Your task to perform on an android device: Open display settings Image 0: 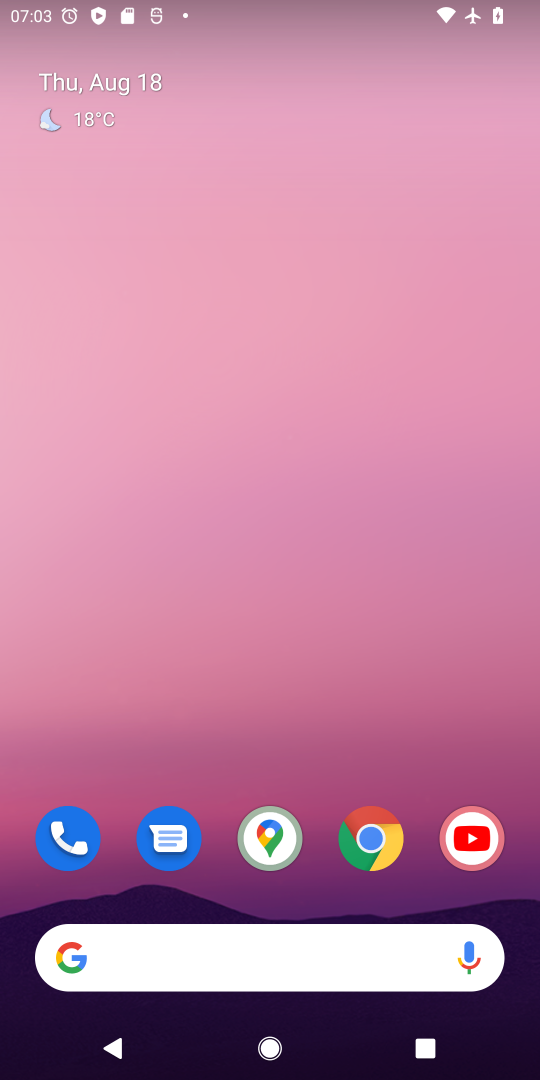
Step 0: press home button
Your task to perform on an android device: Open display settings Image 1: 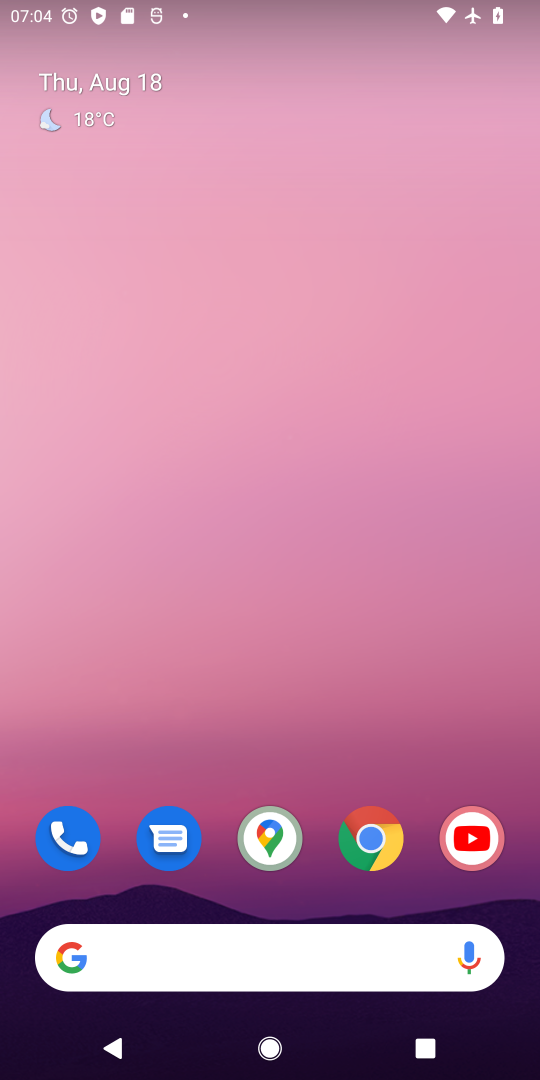
Step 1: drag from (328, 715) to (290, 0)
Your task to perform on an android device: Open display settings Image 2: 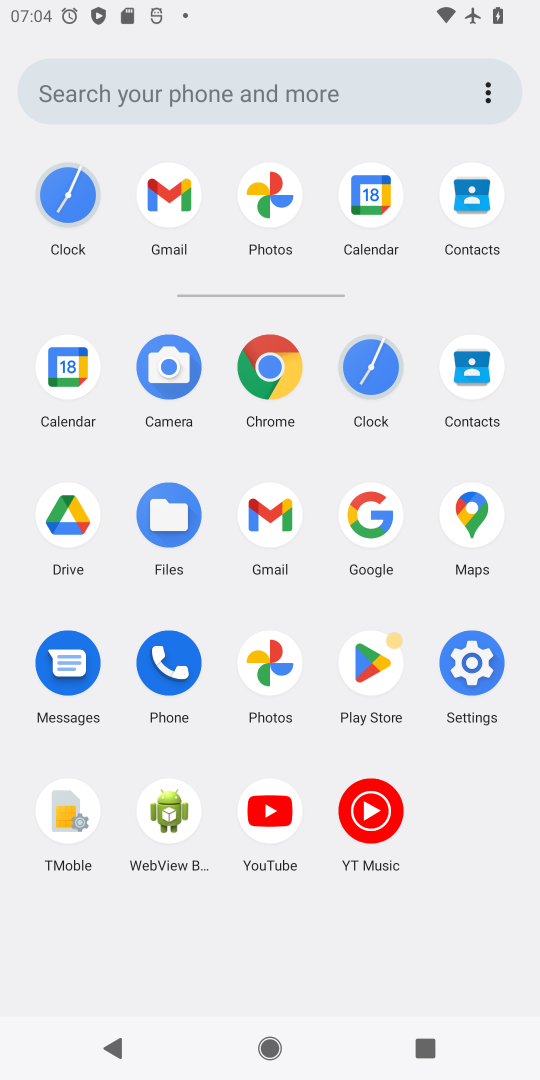
Step 2: click (461, 648)
Your task to perform on an android device: Open display settings Image 3: 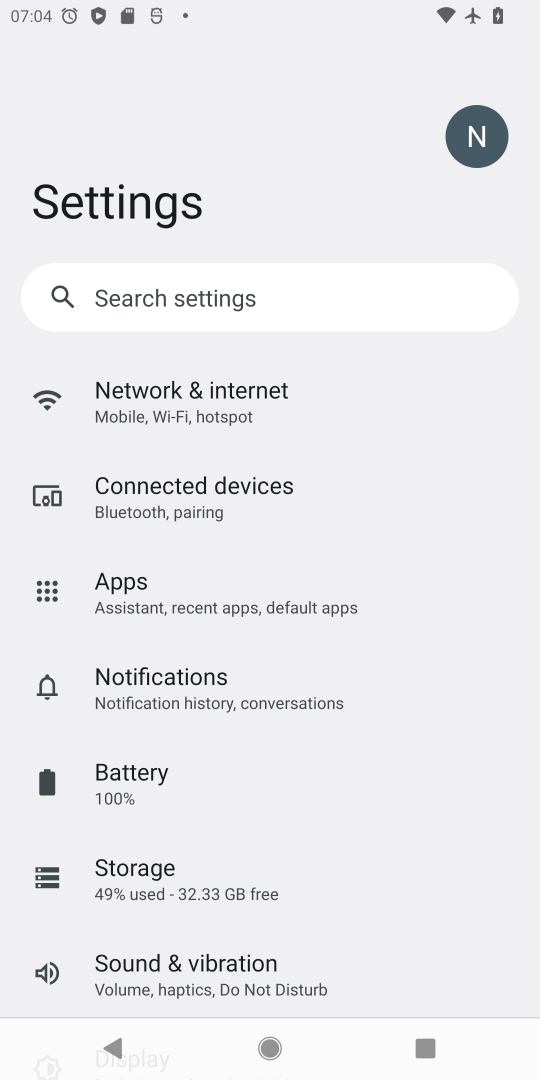
Step 3: drag from (503, 873) to (480, 166)
Your task to perform on an android device: Open display settings Image 4: 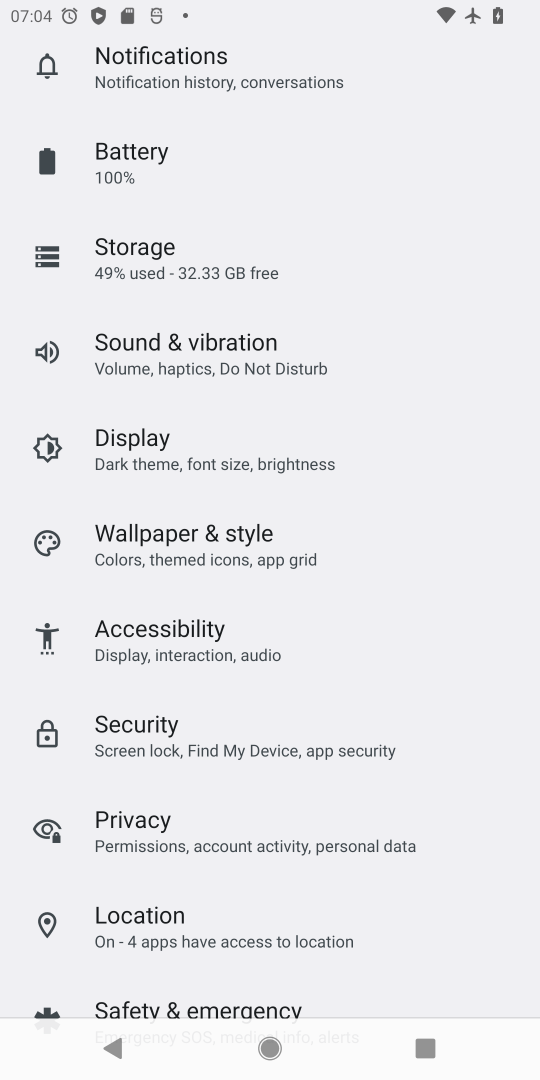
Step 4: click (126, 456)
Your task to perform on an android device: Open display settings Image 5: 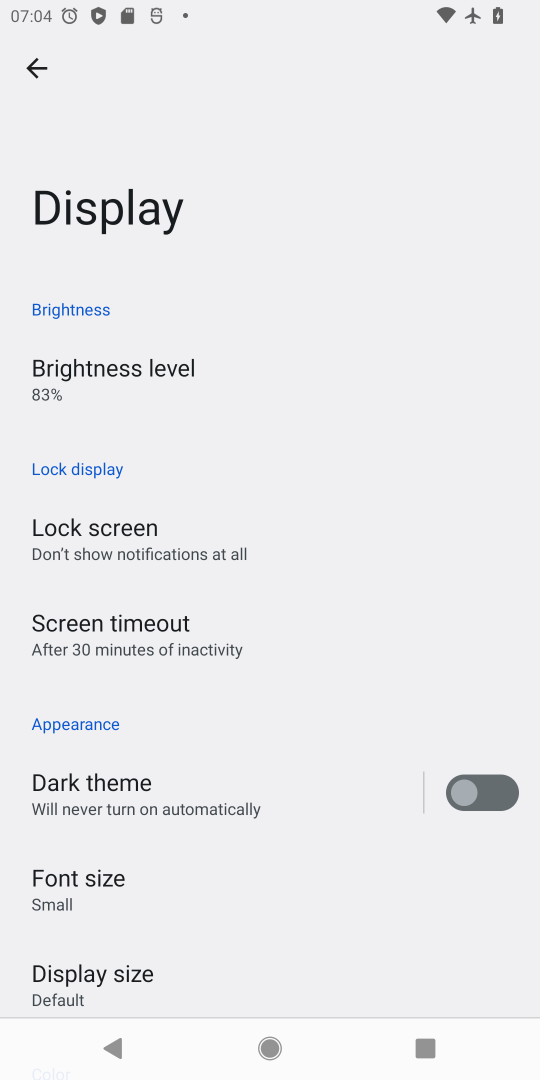
Step 5: task complete